Your task to perform on an android device: View the shopping cart on target. Search for asus rog on target, select the first entry, and add it to the cart. Image 0: 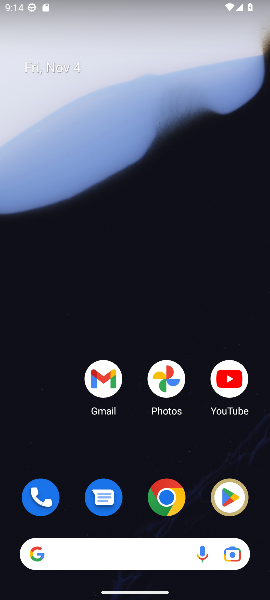
Step 0: click (171, 501)
Your task to perform on an android device: View the shopping cart on target. Search for asus rog on target, select the first entry, and add it to the cart. Image 1: 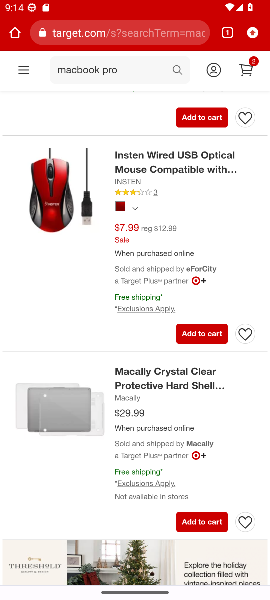
Step 1: click (243, 68)
Your task to perform on an android device: View the shopping cart on target. Search for asus rog on target, select the first entry, and add it to the cart. Image 2: 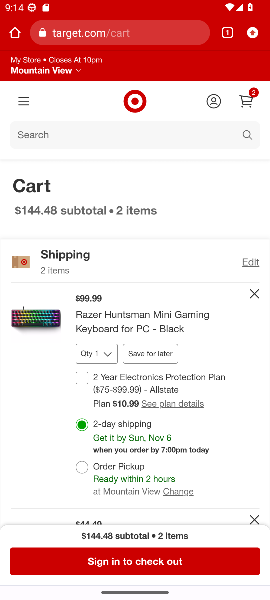
Step 2: click (246, 138)
Your task to perform on an android device: View the shopping cart on target. Search for asus rog on target, select the first entry, and add it to the cart. Image 3: 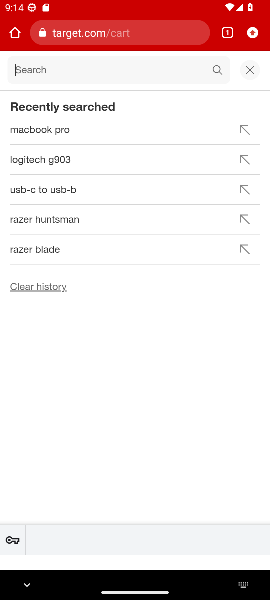
Step 3: type " asus rog"
Your task to perform on an android device: View the shopping cart on target. Search for asus rog on target, select the first entry, and add it to the cart. Image 4: 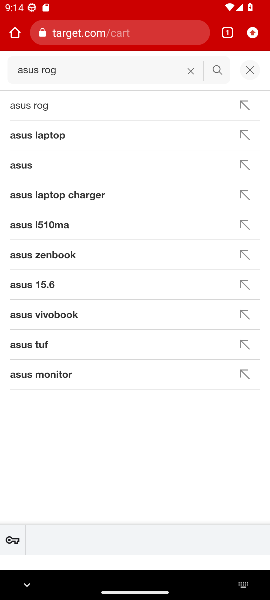
Step 4: click (28, 110)
Your task to perform on an android device: View the shopping cart on target. Search for asus rog on target, select the first entry, and add it to the cart. Image 5: 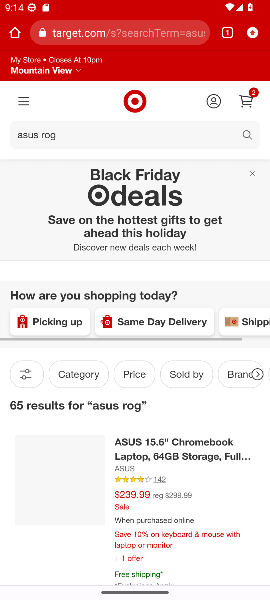
Step 5: task complete